Your task to perform on an android device: Open the Play Movies app and select the watchlist tab. Image 0: 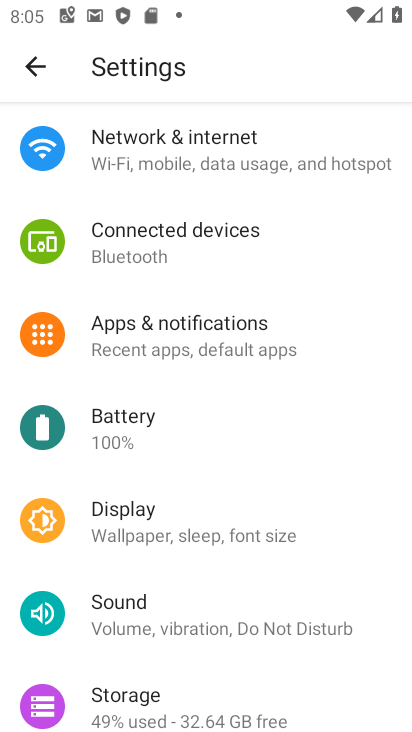
Step 0: press home button
Your task to perform on an android device: Open the Play Movies app and select the watchlist tab. Image 1: 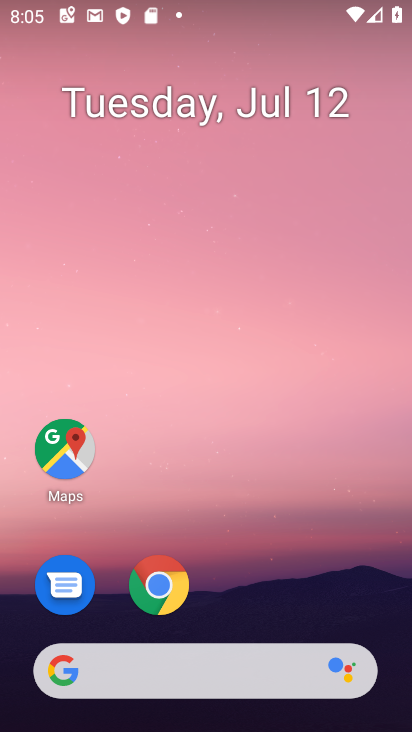
Step 1: drag from (283, 528) to (253, 21)
Your task to perform on an android device: Open the Play Movies app and select the watchlist tab. Image 2: 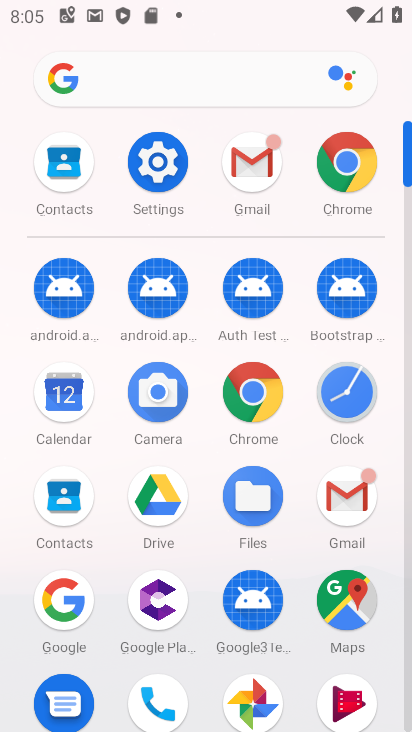
Step 2: drag from (300, 573) to (316, 352)
Your task to perform on an android device: Open the Play Movies app and select the watchlist tab. Image 3: 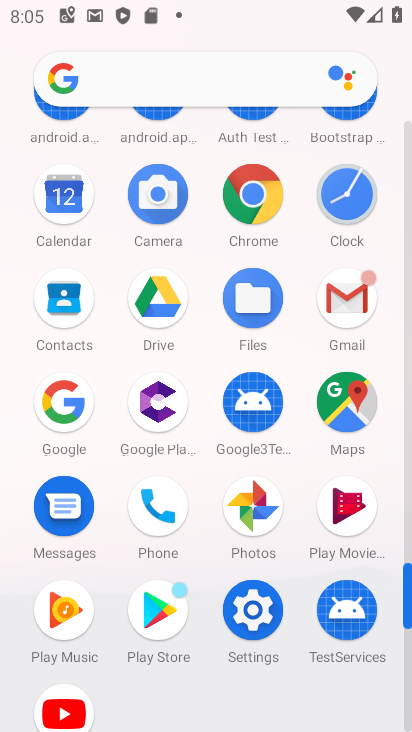
Step 3: click (341, 496)
Your task to perform on an android device: Open the Play Movies app and select the watchlist tab. Image 4: 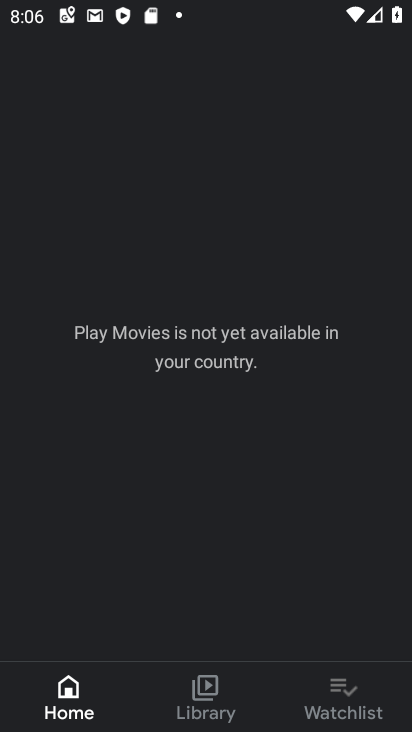
Step 4: click (332, 693)
Your task to perform on an android device: Open the Play Movies app and select the watchlist tab. Image 5: 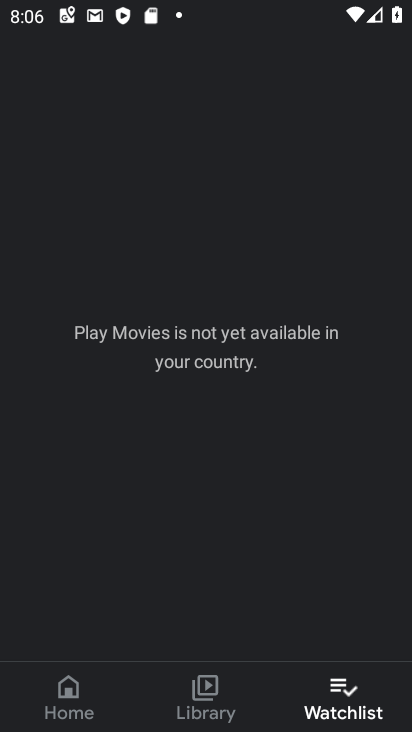
Step 5: task complete